Your task to perform on an android device: turn on bluetooth scan Image 0: 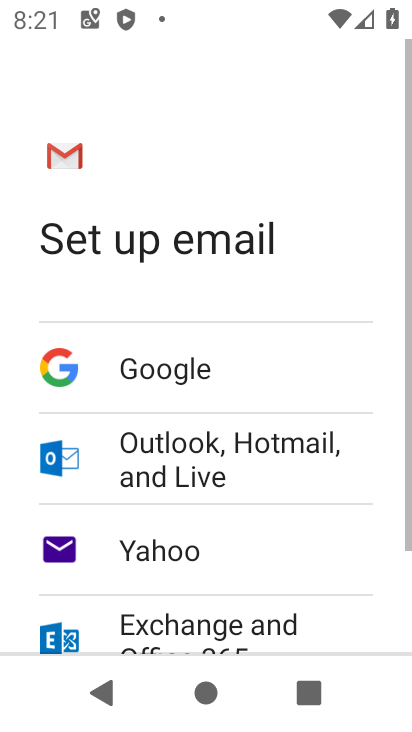
Step 0: press home button
Your task to perform on an android device: turn on bluetooth scan Image 1: 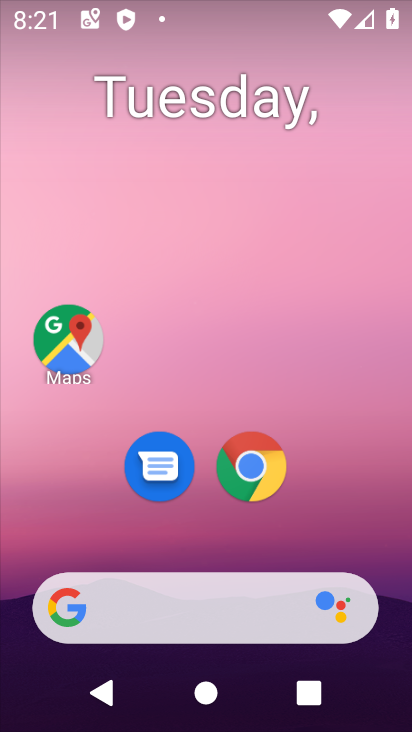
Step 1: drag from (205, 551) to (133, 6)
Your task to perform on an android device: turn on bluetooth scan Image 2: 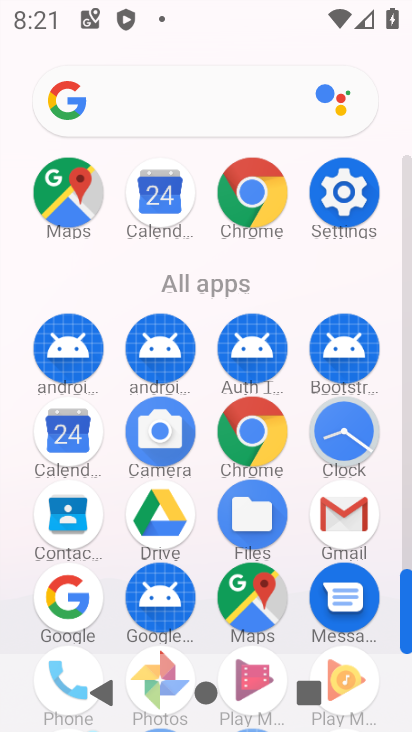
Step 2: click (362, 195)
Your task to perform on an android device: turn on bluetooth scan Image 3: 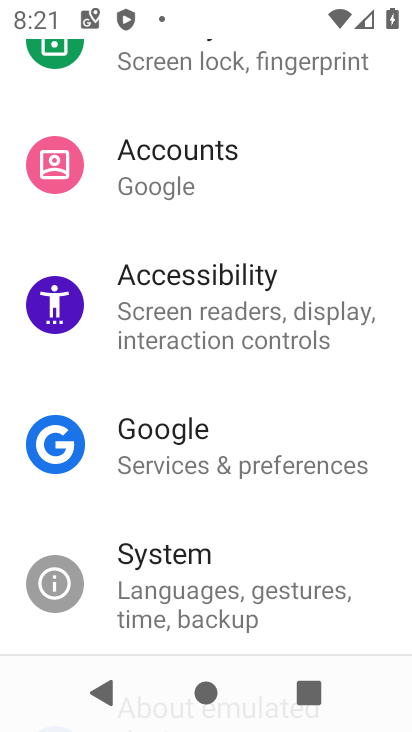
Step 3: drag from (224, 204) to (243, 717)
Your task to perform on an android device: turn on bluetooth scan Image 4: 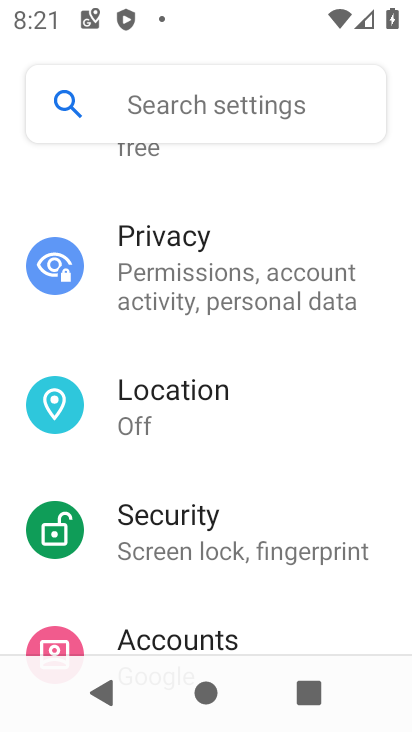
Step 4: click (235, 402)
Your task to perform on an android device: turn on bluetooth scan Image 5: 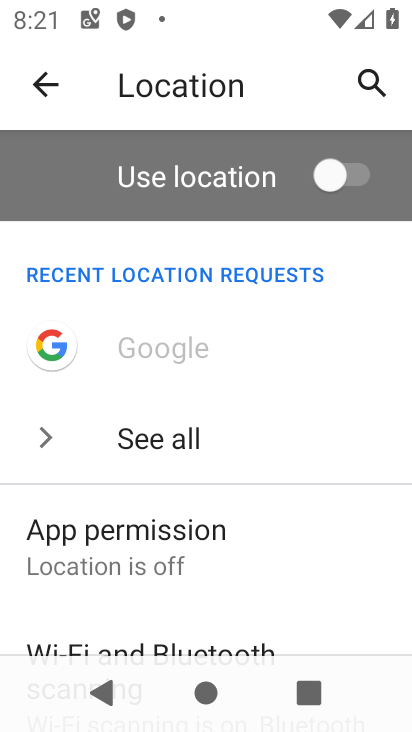
Step 5: drag from (248, 553) to (299, 255)
Your task to perform on an android device: turn on bluetooth scan Image 6: 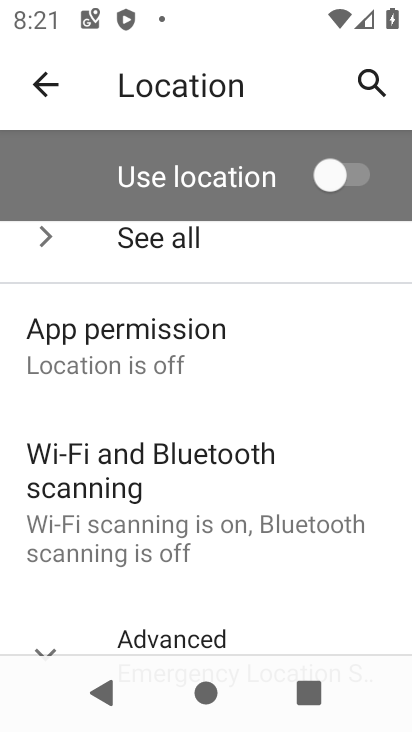
Step 6: click (233, 470)
Your task to perform on an android device: turn on bluetooth scan Image 7: 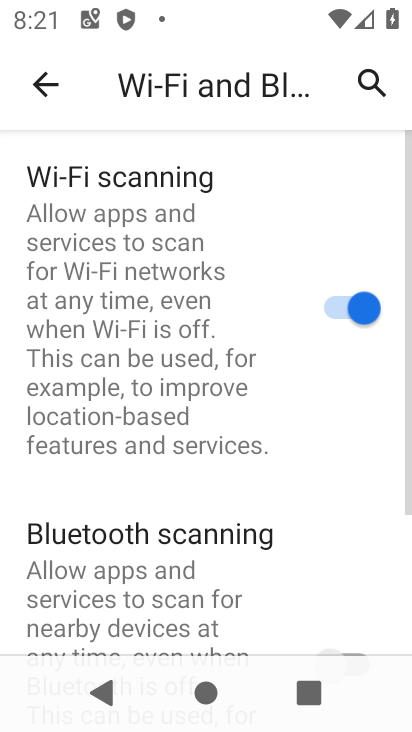
Step 7: drag from (272, 553) to (300, 221)
Your task to perform on an android device: turn on bluetooth scan Image 8: 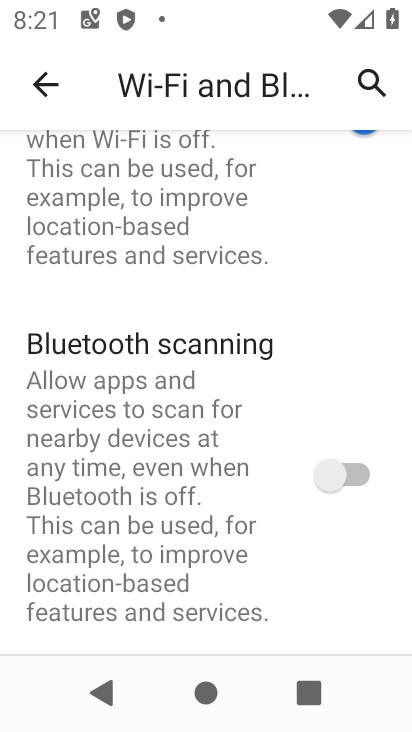
Step 8: click (365, 480)
Your task to perform on an android device: turn on bluetooth scan Image 9: 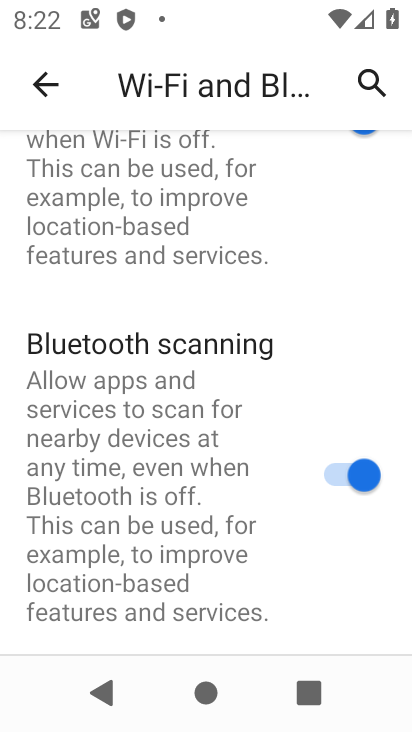
Step 9: task complete